Your task to perform on an android device: open app "Microsoft Excel" (install if not already installed) and go to login screen Image 0: 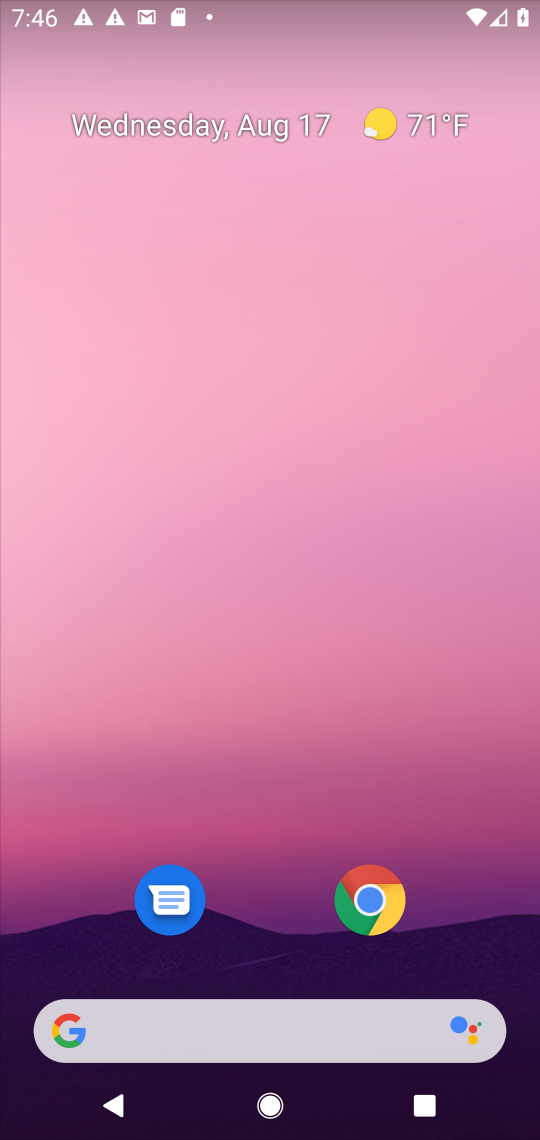
Step 0: drag from (417, 962) to (522, 15)
Your task to perform on an android device: open app "Microsoft Excel" (install if not already installed) and go to login screen Image 1: 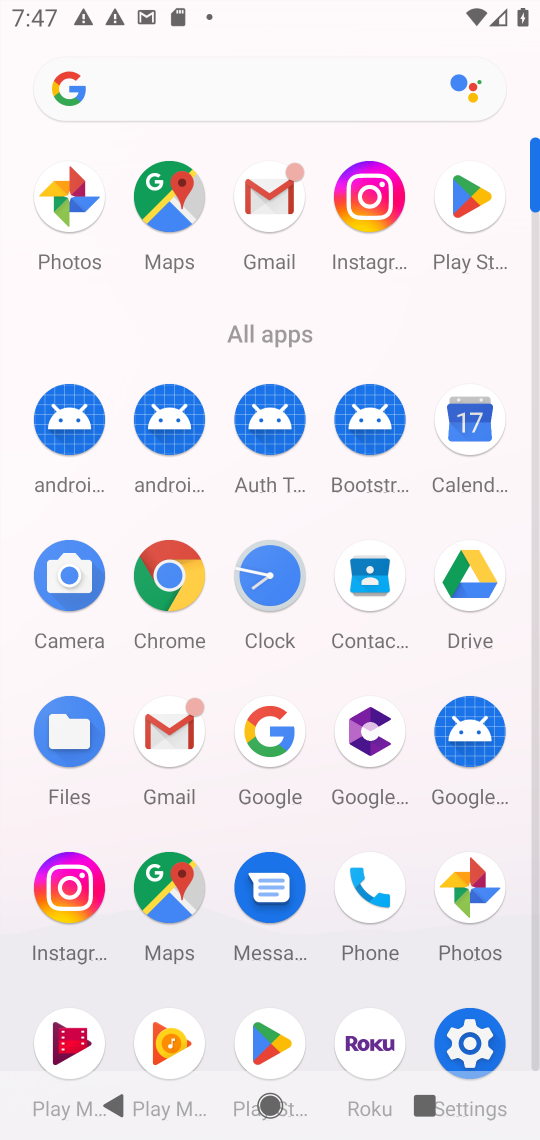
Step 1: click (450, 202)
Your task to perform on an android device: open app "Microsoft Excel" (install if not already installed) and go to login screen Image 2: 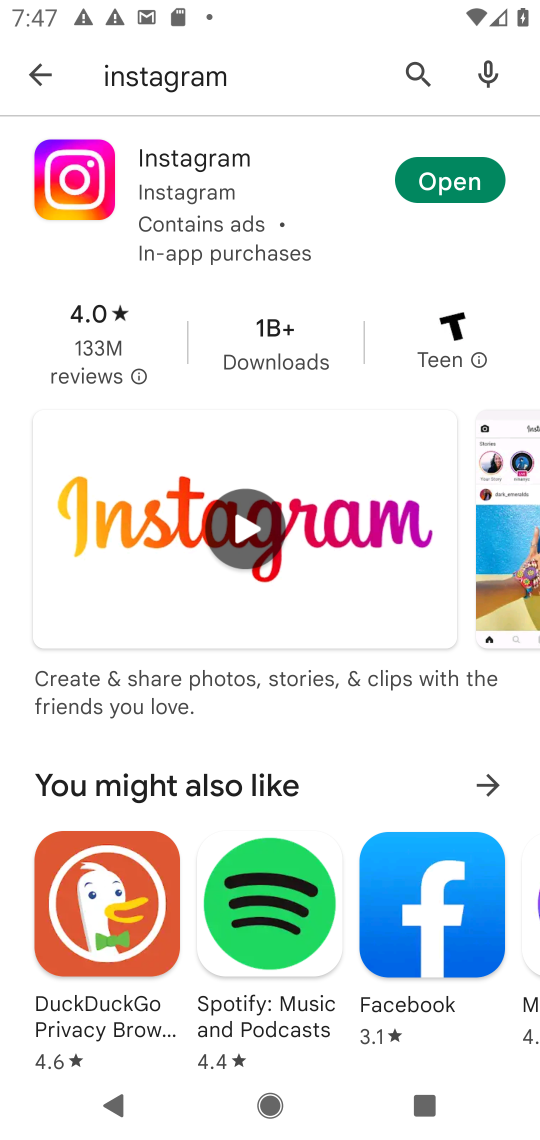
Step 2: click (42, 82)
Your task to perform on an android device: open app "Microsoft Excel" (install if not already installed) and go to login screen Image 3: 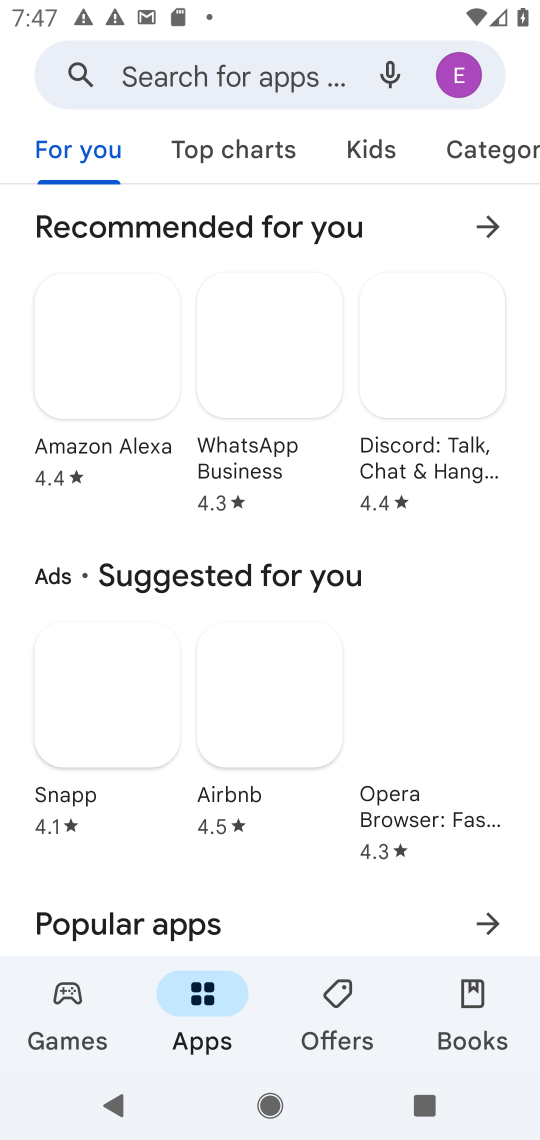
Step 3: click (290, 72)
Your task to perform on an android device: open app "Microsoft Excel" (install if not already installed) and go to login screen Image 4: 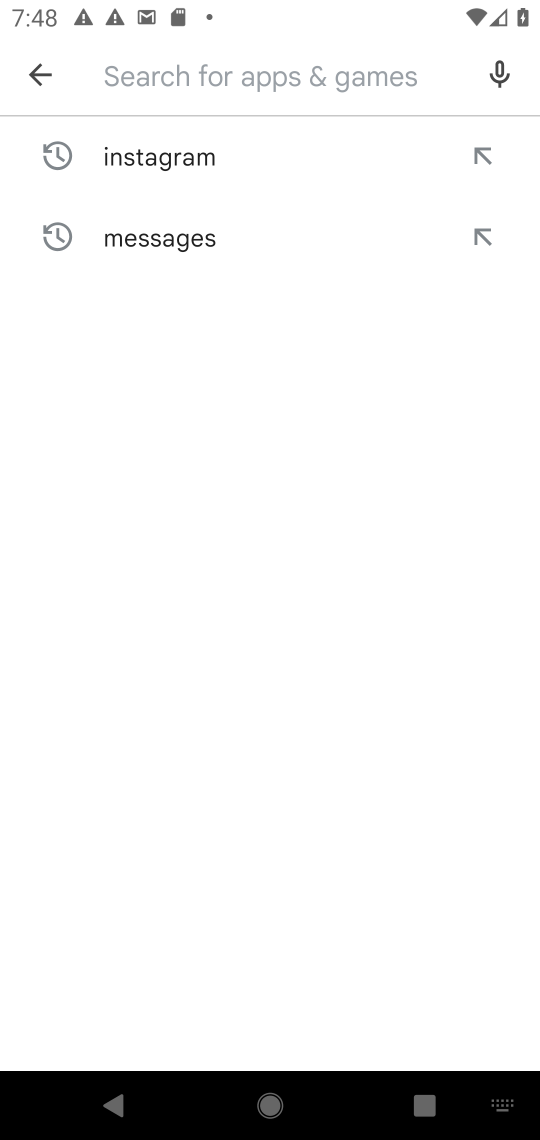
Step 4: type "Microsoft Excel"
Your task to perform on an android device: open app "Microsoft Excel" (install if not already installed) and go to login screen Image 5: 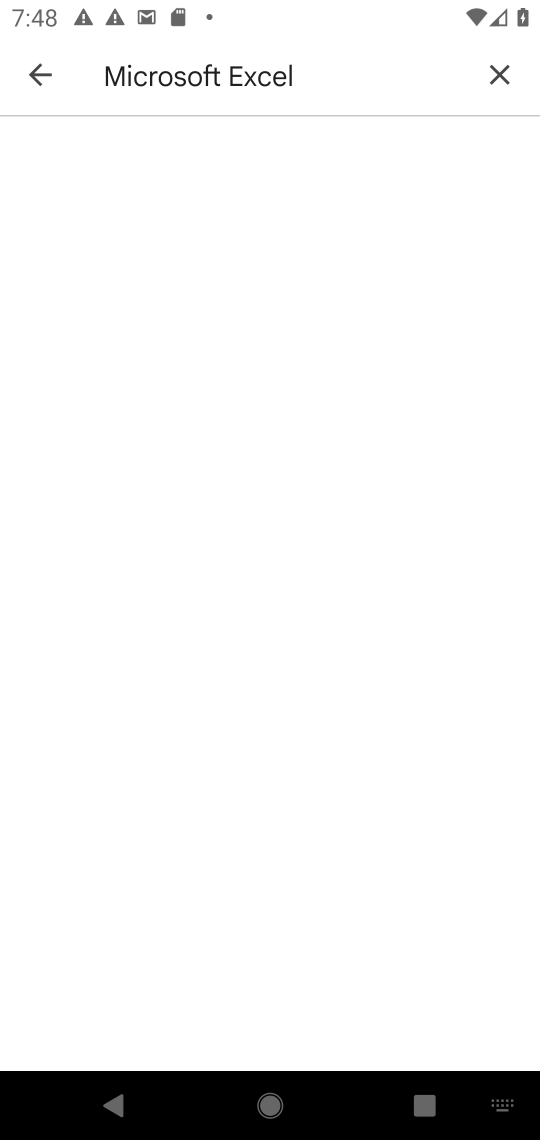
Step 5: press enter
Your task to perform on an android device: open app "Microsoft Excel" (install if not already installed) and go to login screen Image 6: 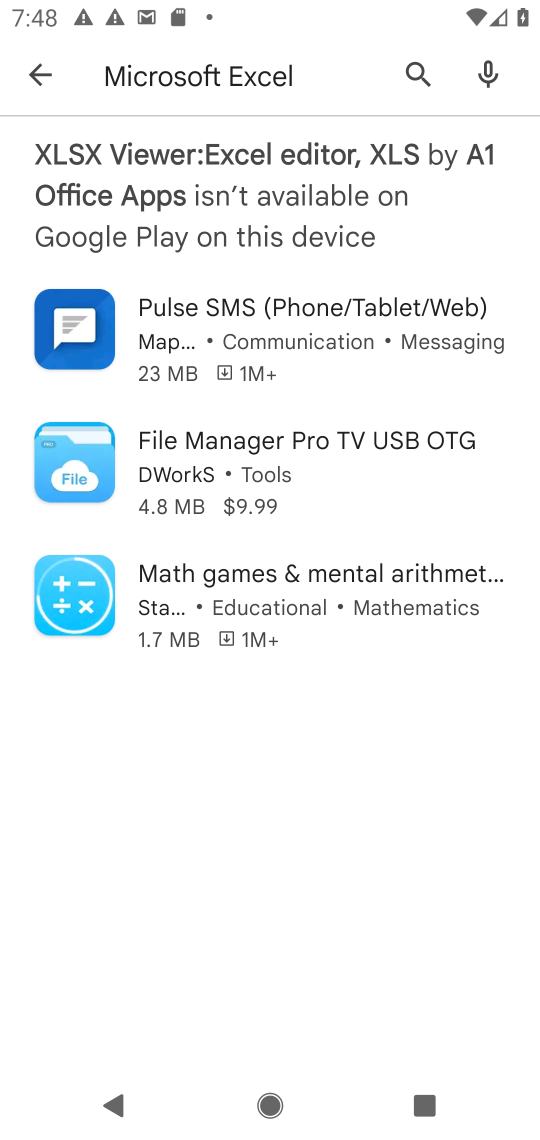
Step 6: task complete